Your task to perform on an android device: turn off priority inbox in the gmail app Image 0: 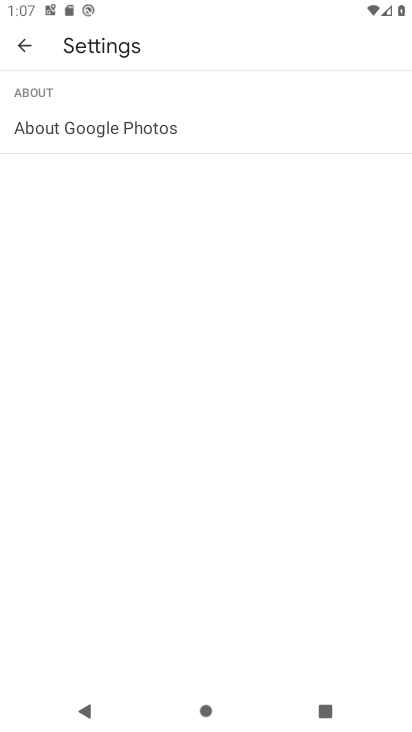
Step 0: click (28, 40)
Your task to perform on an android device: turn off priority inbox in the gmail app Image 1: 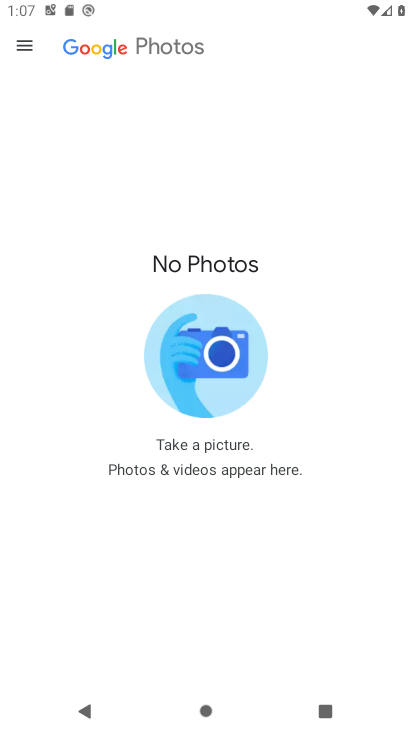
Step 1: press home button
Your task to perform on an android device: turn off priority inbox in the gmail app Image 2: 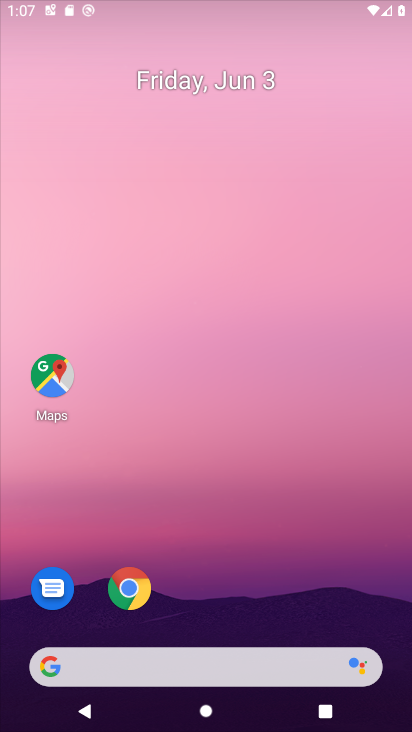
Step 2: drag from (191, 600) to (201, 245)
Your task to perform on an android device: turn off priority inbox in the gmail app Image 3: 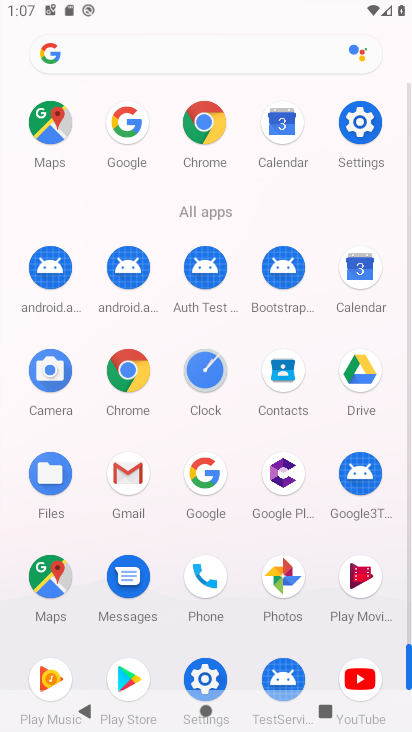
Step 3: click (118, 475)
Your task to perform on an android device: turn off priority inbox in the gmail app Image 4: 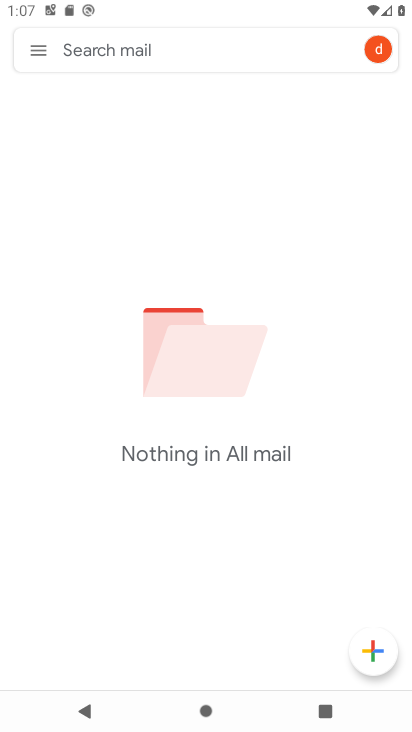
Step 4: click (36, 52)
Your task to perform on an android device: turn off priority inbox in the gmail app Image 5: 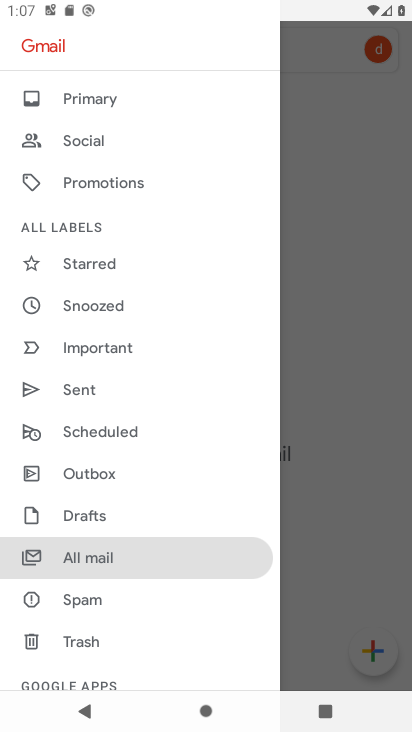
Step 5: drag from (117, 582) to (124, 337)
Your task to perform on an android device: turn off priority inbox in the gmail app Image 6: 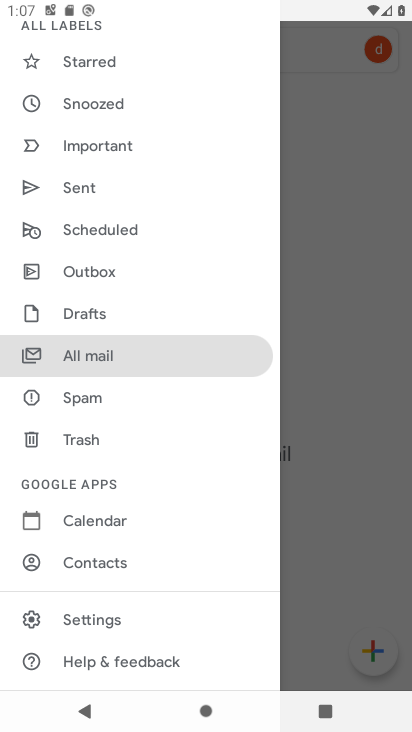
Step 6: click (103, 607)
Your task to perform on an android device: turn off priority inbox in the gmail app Image 7: 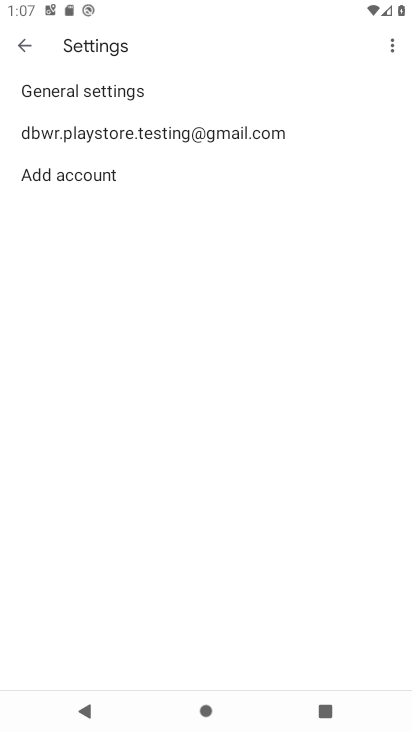
Step 7: click (274, 145)
Your task to perform on an android device: turn off priority inbox in the gmail app Image 8: 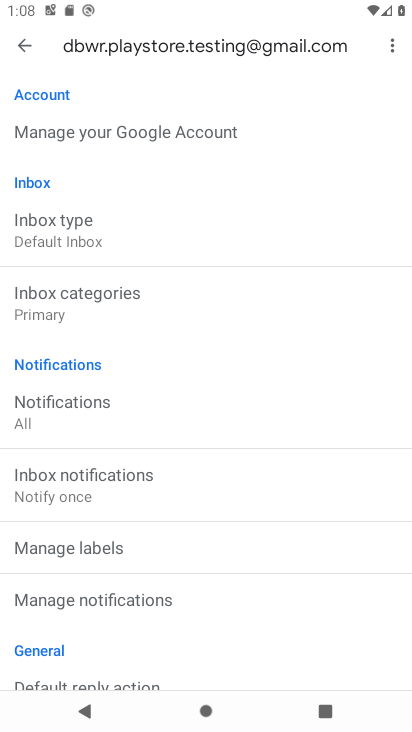
Step 8: task complete